Your task to perform on an android device: Add "usb-a" to the cart on bestbuy.com, then select checkout. Image 0: 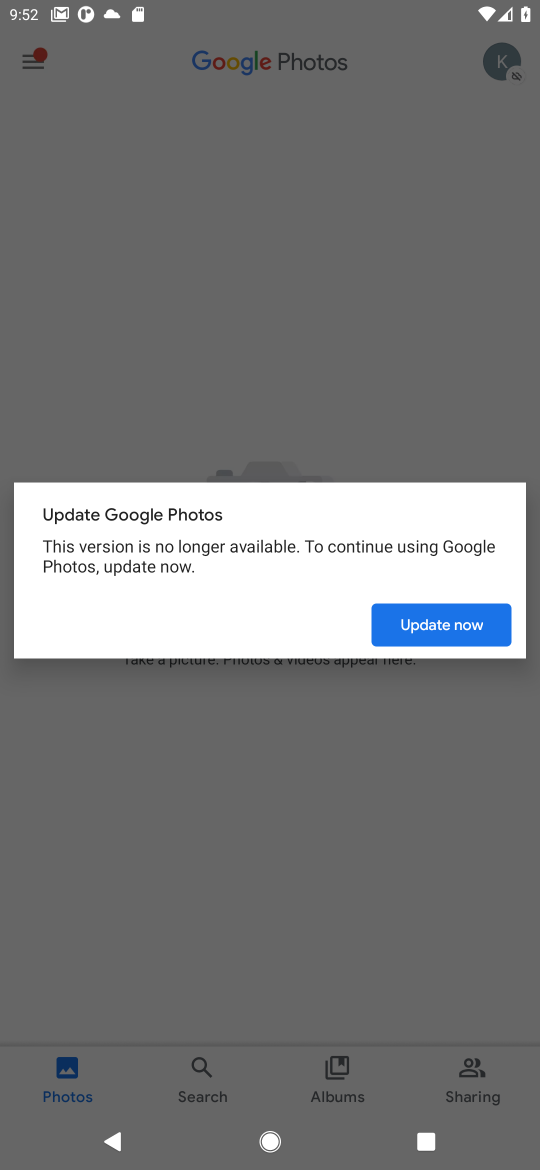
Step 0: press home button
Your task to perform on an android device: Add "usb-a" to the cart on bestbuy.com, then select checkout. Image 1: 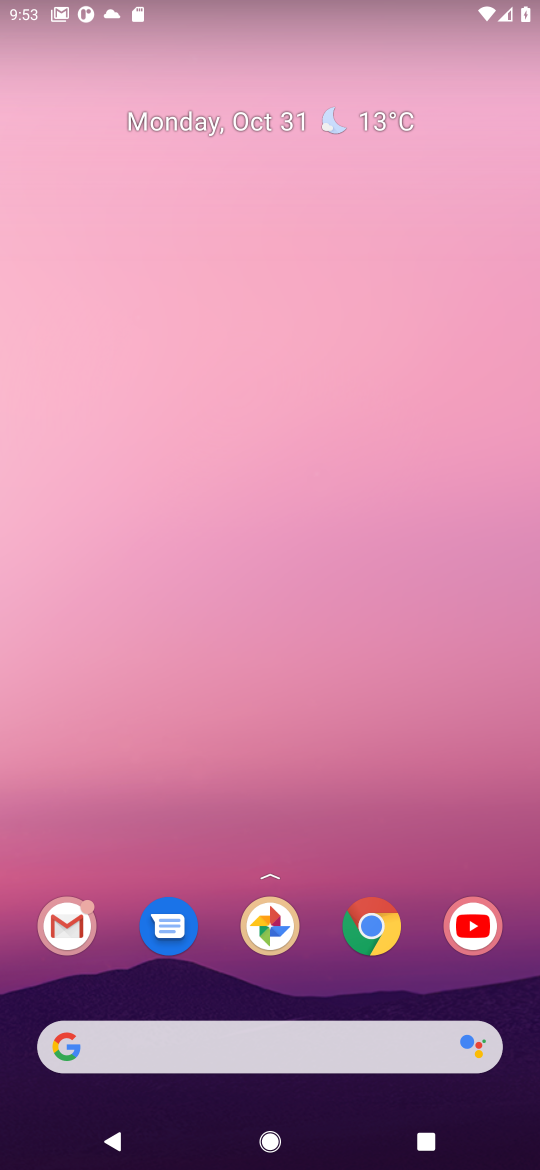
Step 1: click (368, 938)
Your task to perform on an android device: Add "usb-a" to the cart on bestbuy.com, then select checkout. Image 2: 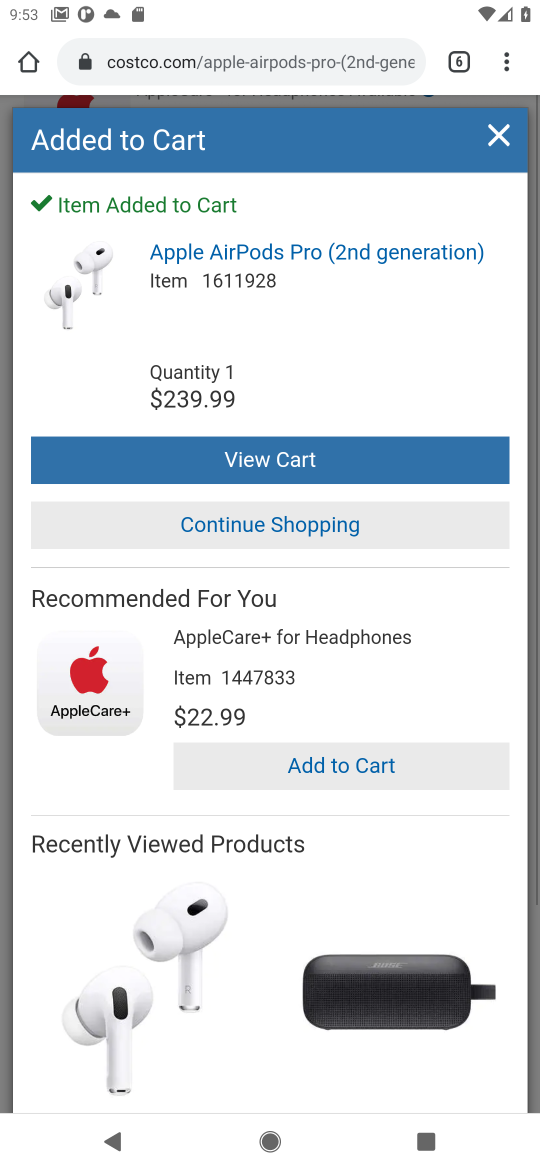
Step 2: click (459, 69)
Your task to perform on an android device: Add "usb-a" to the cart on bestbuy.com, then select checkout. Image 3: 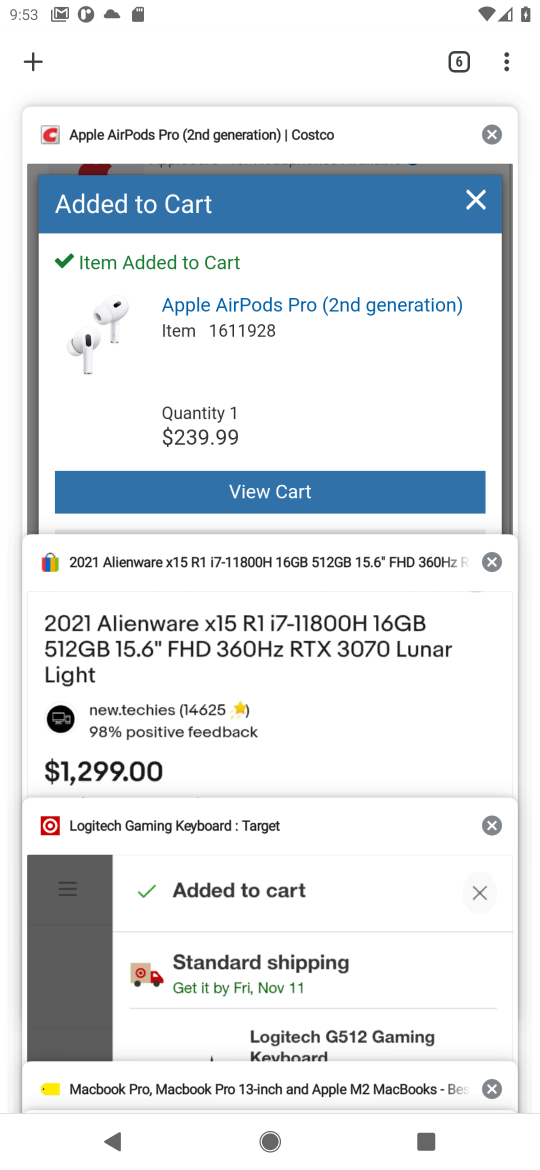
Step 3: click (161, 1089)
Your task to perform on an android device: Add "usb-a" to the cart on bestbuy.com, then select checkout. Image 4: 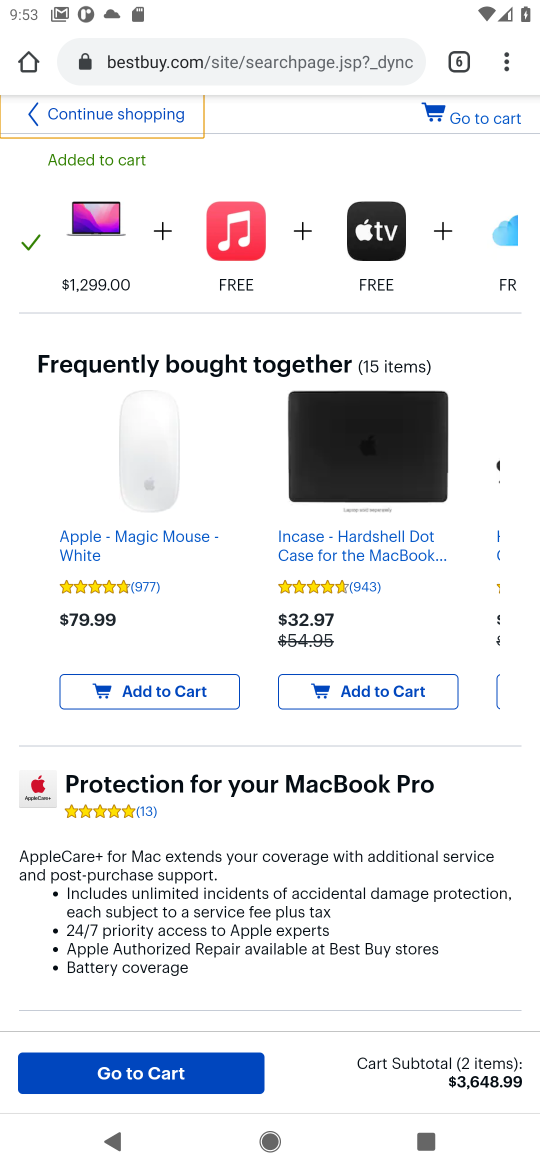
Step 4: click (152, 109)
Your task to perform on an android device: Add "usb-a" to the cart on bestbuy.com, then select checkout. Image 5: 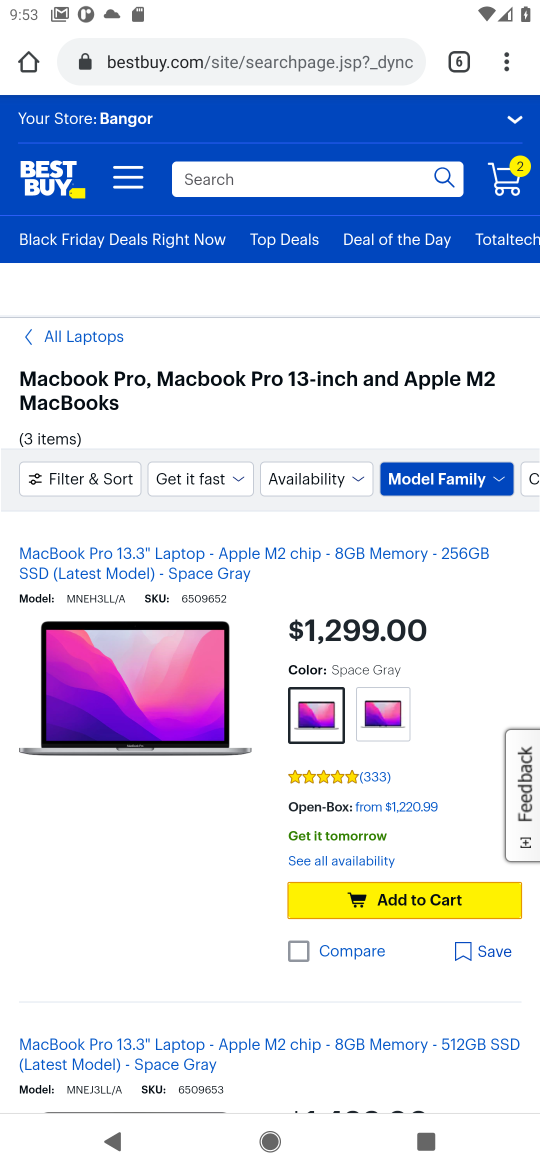
Step 5: click (260, 184)
Your task to perform on an android device: Add "usb-a" to the cart on bestbuy.com, then select checkout. Image 6: 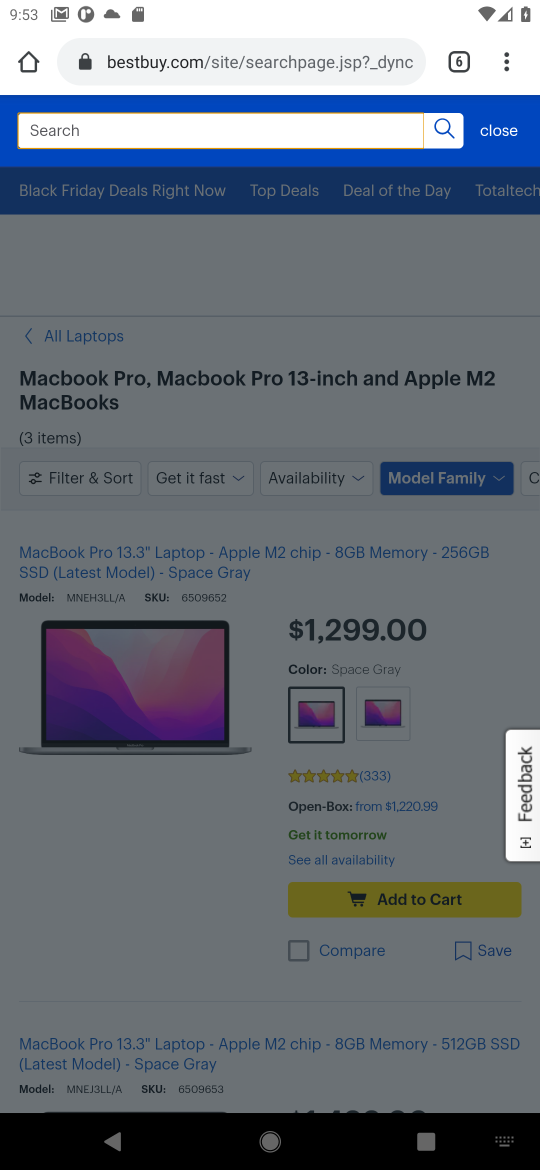
Step 6: type "usb-a"
Your task to perform on an android device: Add "usb-a" to the cart on bestbuy.com, then select checkout. Image 7: 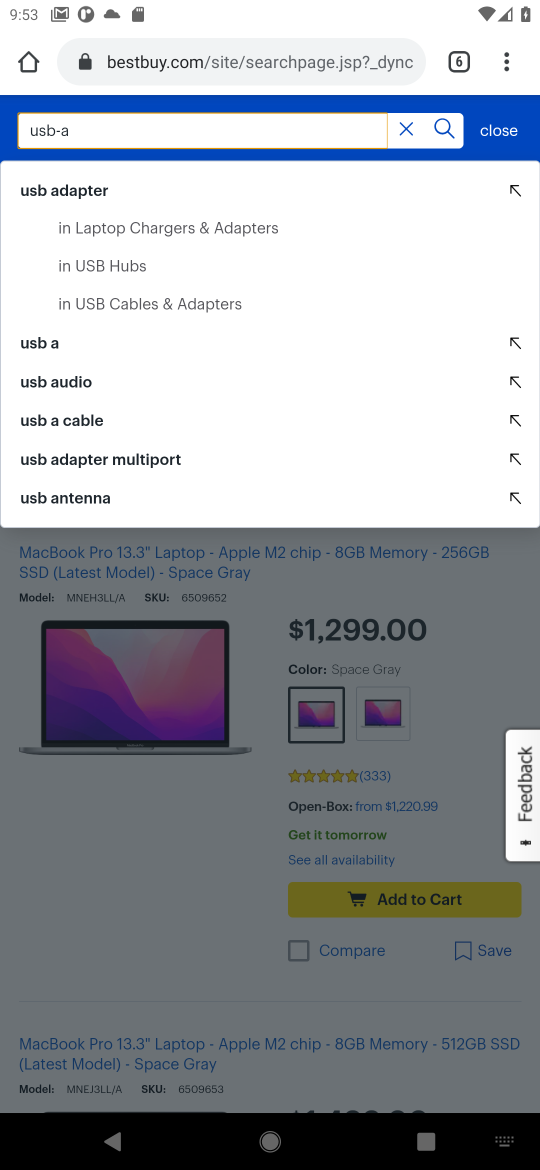
Step 7: click (36, 343)
Your task to perform on an android device: Add "usb-a" to the cart on bestbuy.com, then select checkout. Image 8: 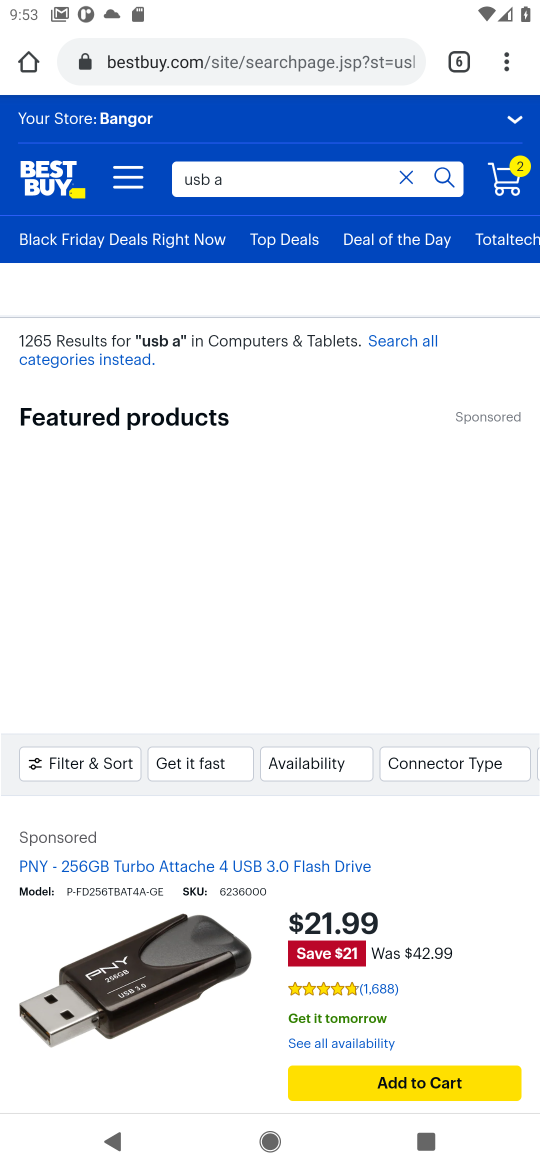
Step 8: drag from (414, 1012) to (485, 464)
Your task to perform on an android device: Add "usb-a" to the cart on bestbuy.com, then select checkout. Image 9: 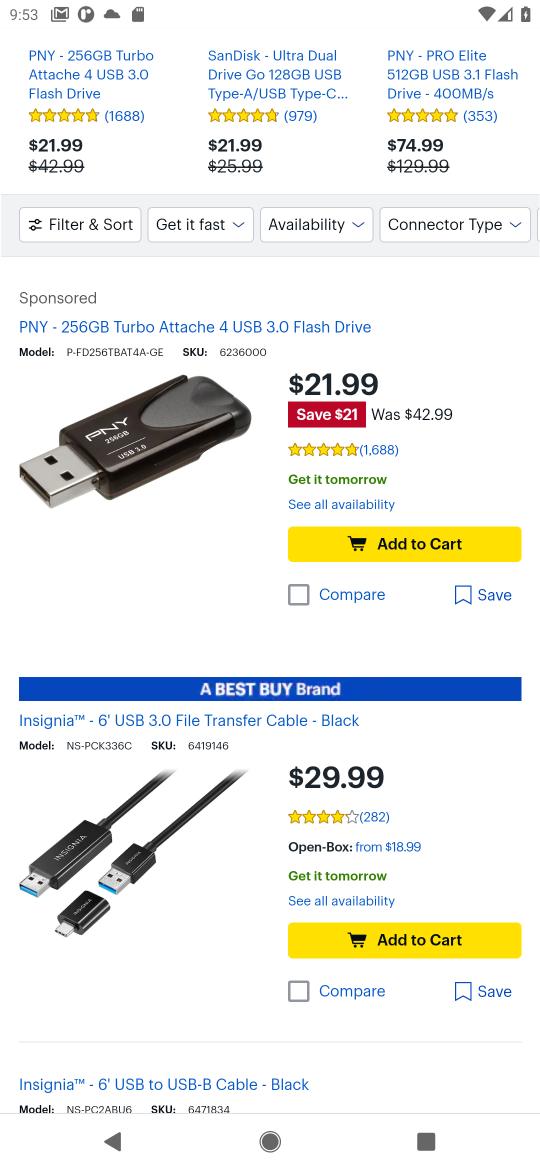
Step 9: click (402, 541)
Your task to perform on an android device: Add "usb-a" to the cart on bestbuy.com, then select checkout. Image 10: 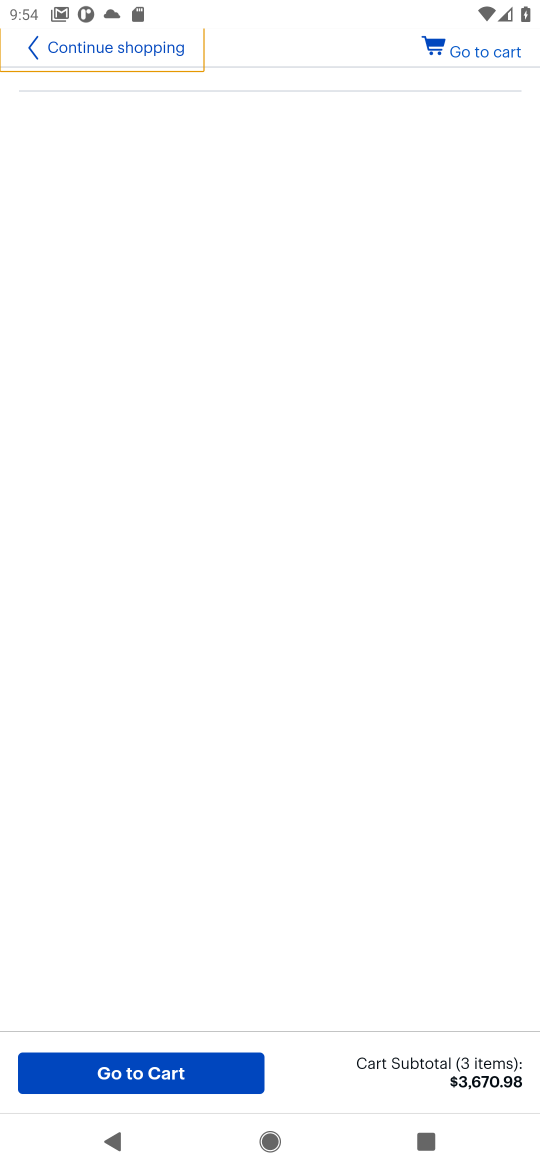
Step 10: click (71, 1067)
Your task to perform on an android device: Add "usb-a" to the cart on bestbuy.com, then select checkout. Image 11: 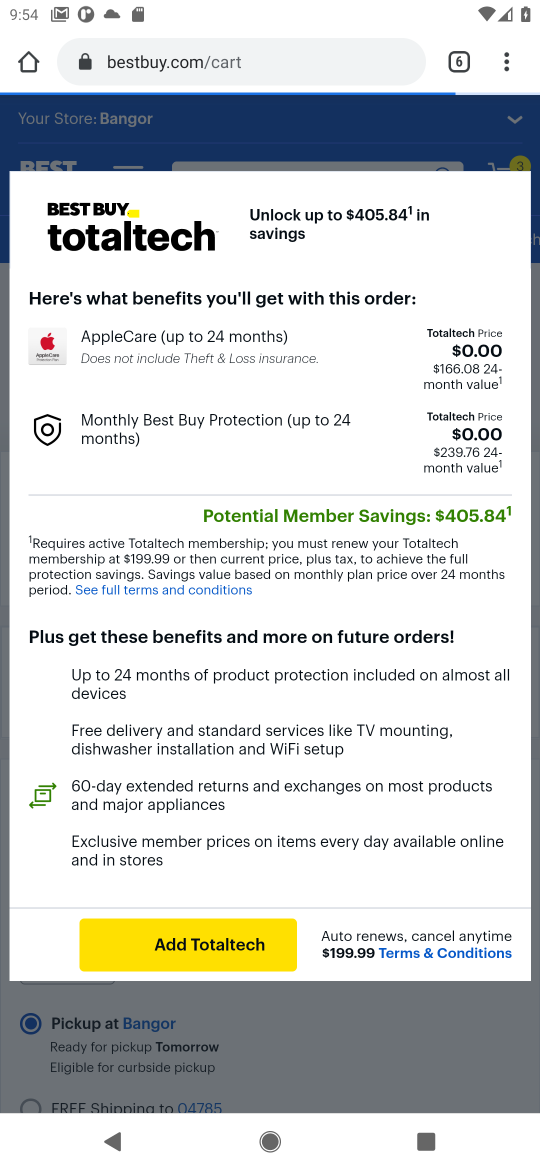
Step 11: click (336, 561)
Your task to perform on an android device: Add "usb-a" to the cart on bestbuy.com, then select checkout. Image 12: 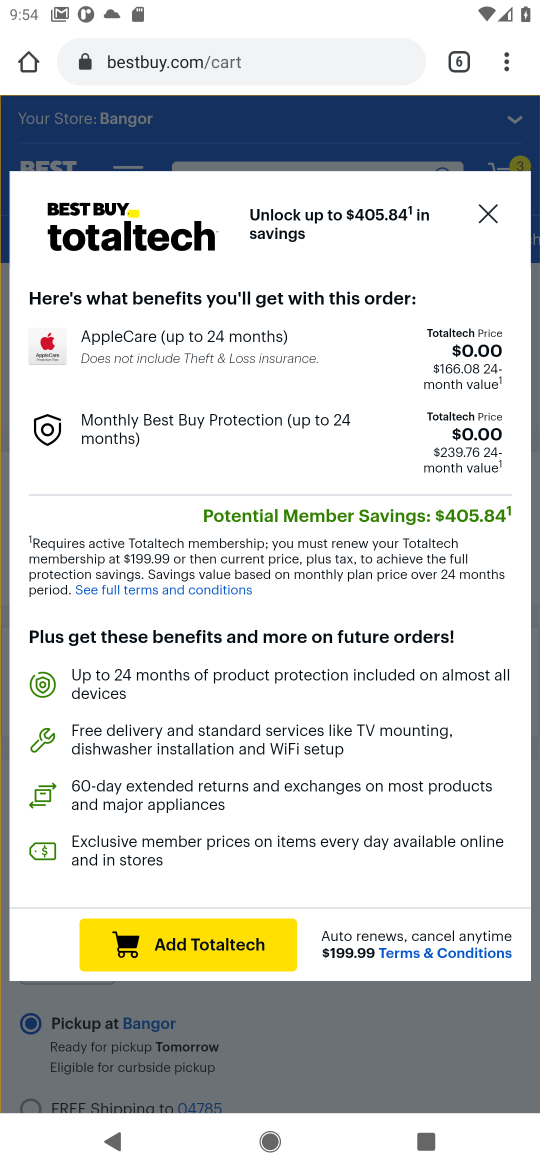
Step 12: click (482, 208)
Your task to perform on an android device: Add "usb-a" to the cart on bestbuy.com, then select checkout. Image 13: 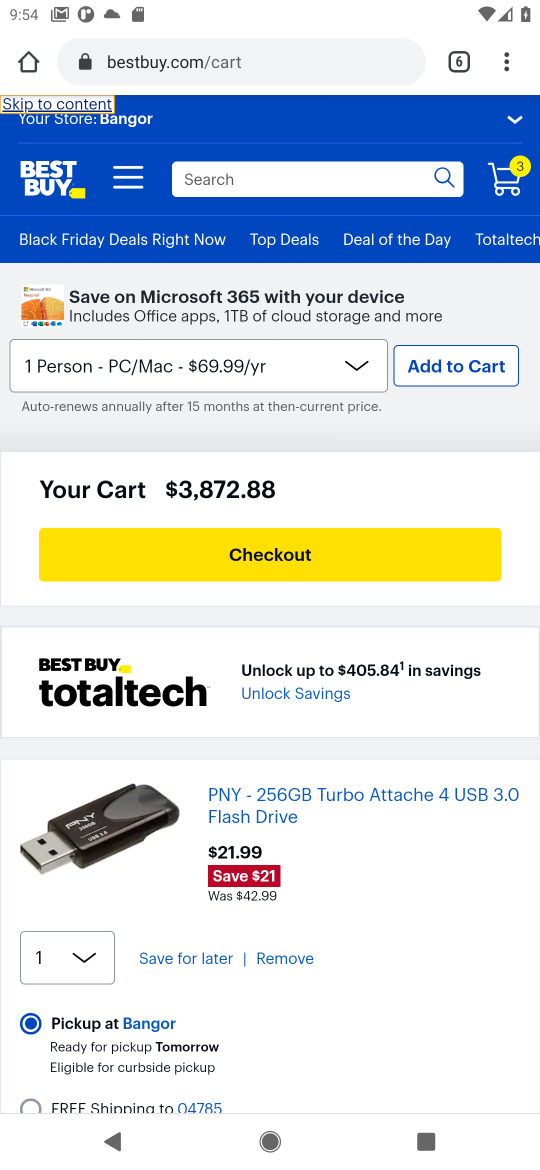
Step 13: click (267, 556)
Your task to perform on an android device: Add "usb-a" to the cart on bestbuy.com, then select checkout. Image 14: 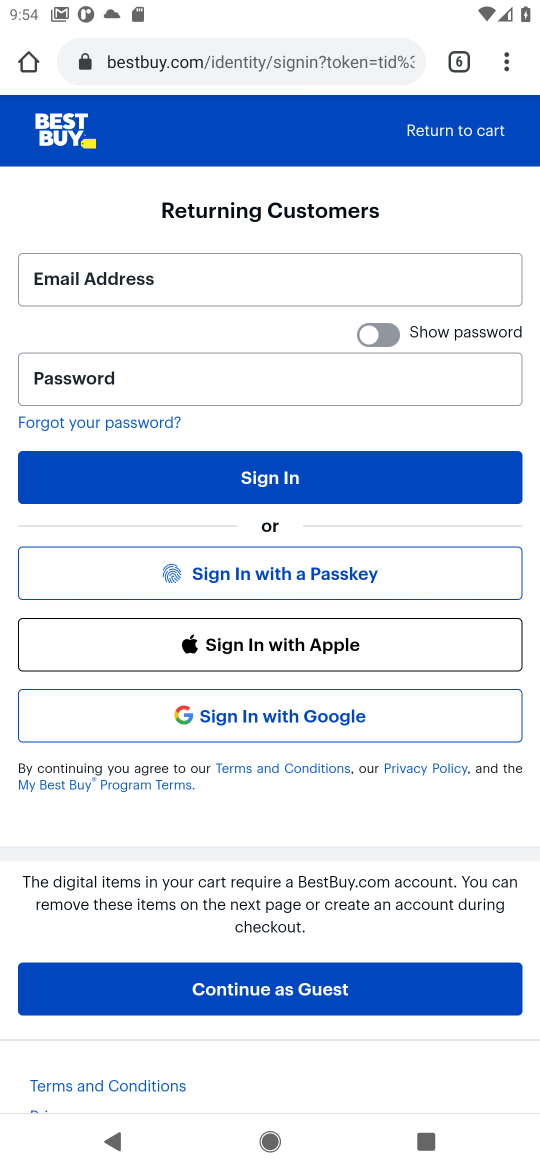
Step 14: task complete